Your task to perform on an android device: Open notification settings Image 0: 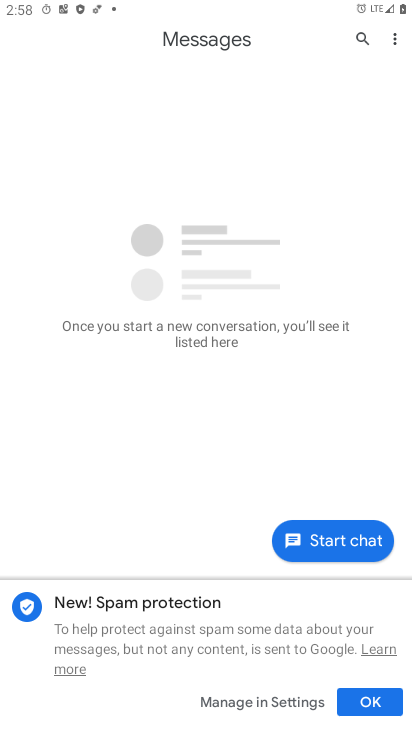
Step 0: press home button
Your task to perform on an android device: Open notification settings Image 1: 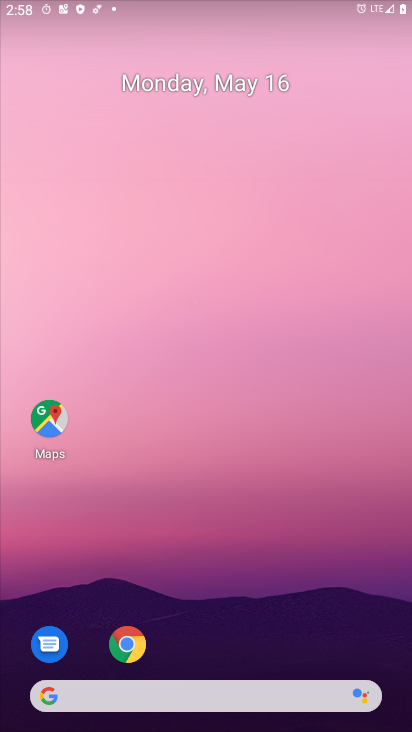
Step 1: drag from (250, 620) to (269, 155)
Your task to perform on an android device: Open notification settings Image 2: 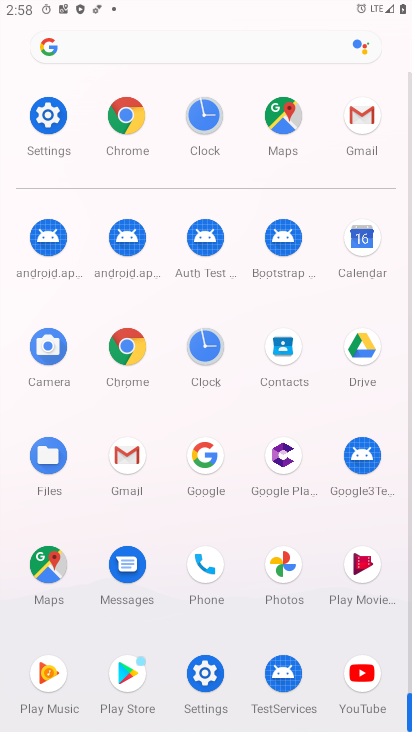
Step 2: click (57, 143)
Your task to perform on an android device: Open notification settings Image 3: 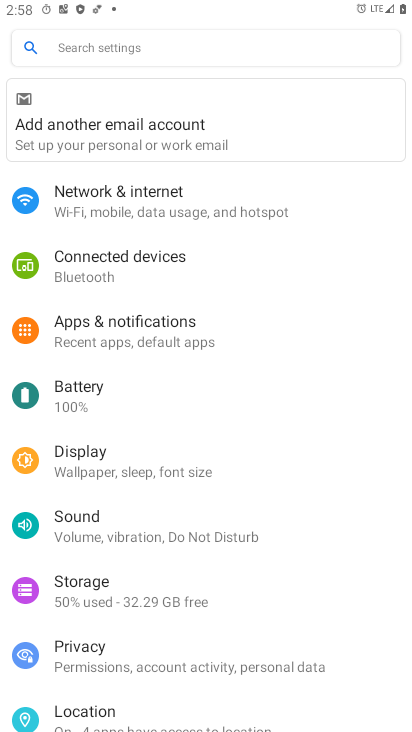
Step 3: click (200, 335)
Your task to perform on an android device: Open notification settings Image 4: 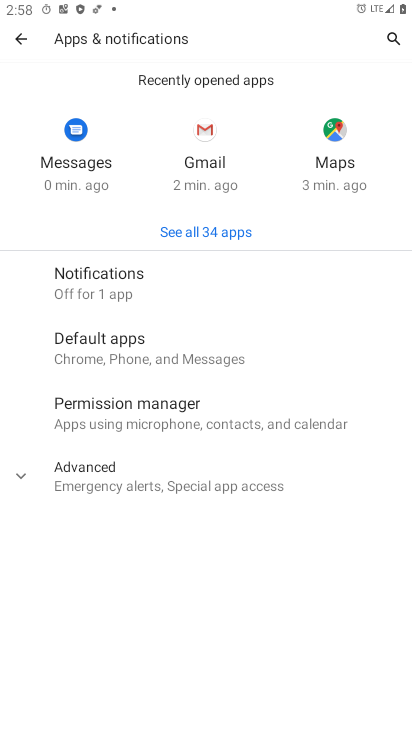
Step 4: click (84, 292)
Your task to perform on an android device: Open notification settings Image 5: 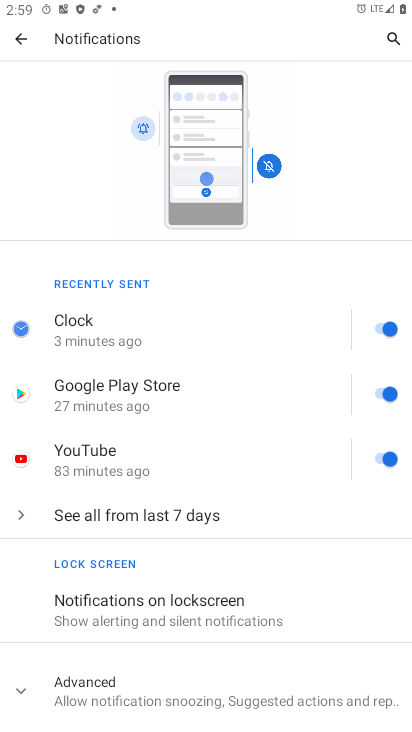
Step 5: task complete